Your task to perform on an android device: open a bookmark in the chrome app Image 0: 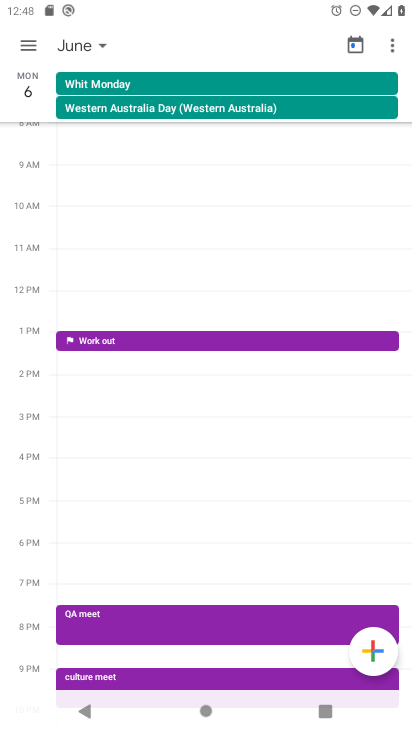
Step 0: press home button
Your task to perform on an android device: open a bookmark in the chrome app Image 1: 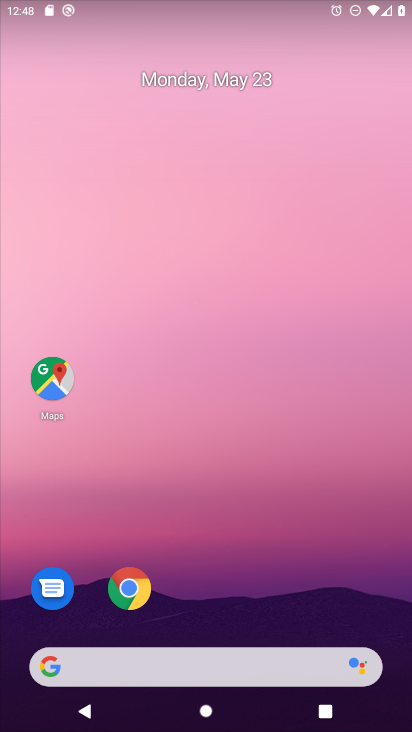
Step 1: drag from (274, 685) to (250, 223)
Your task to perform on an android device: open a bookmark in the chrome app Image 2: 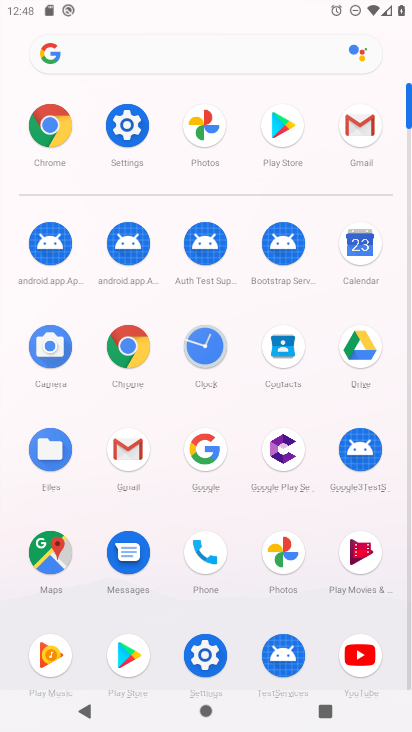
Step 2: click (51, 132)
Your task to perform on an android device: open a bookmark in the chrome app Image 3: 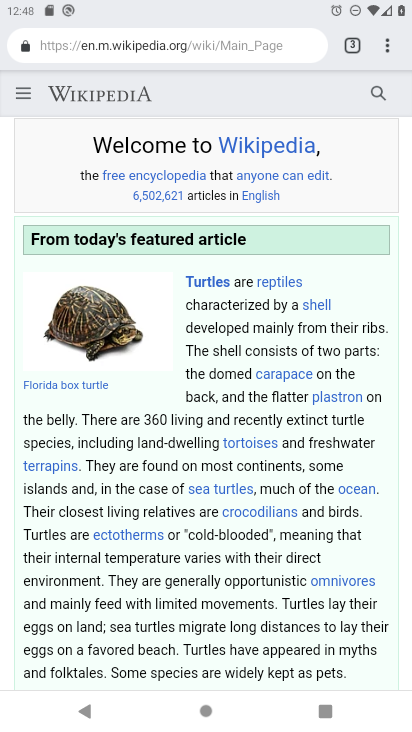
Step 3: click (390, 50)
Your task to perform on an android device: open a bookmark in the chrome app Image 4: 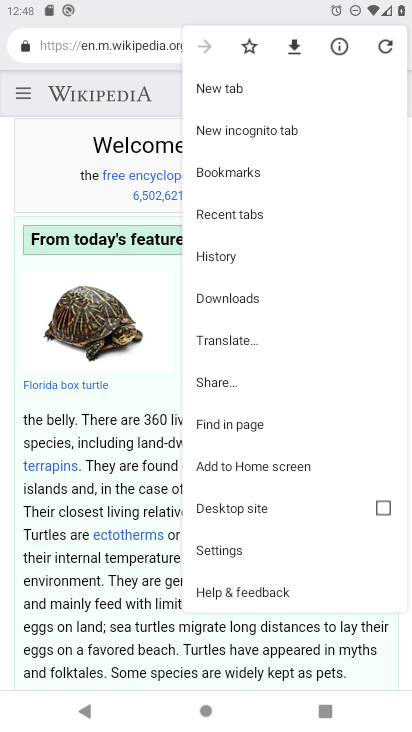
Step 4: click (242, 179)
Your task to perform on an android device: open a bookmark in the chrome app Image 5: 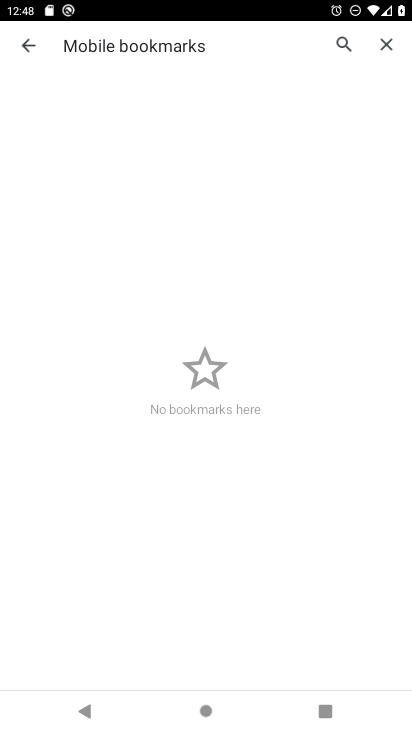
Step 5: task complete